Your task to perform on an android device: Search for vegetarian restaurants on Maps Image 0: 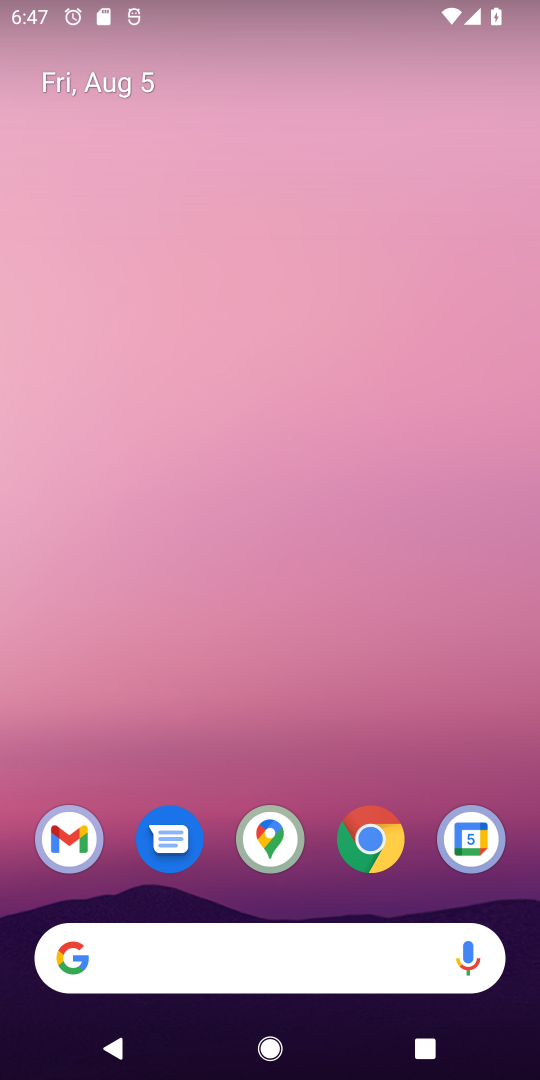
Step 0: click (270, 829)
Your task to perform on an android device: Search for vegetarian restaurants on Maps Image 1: 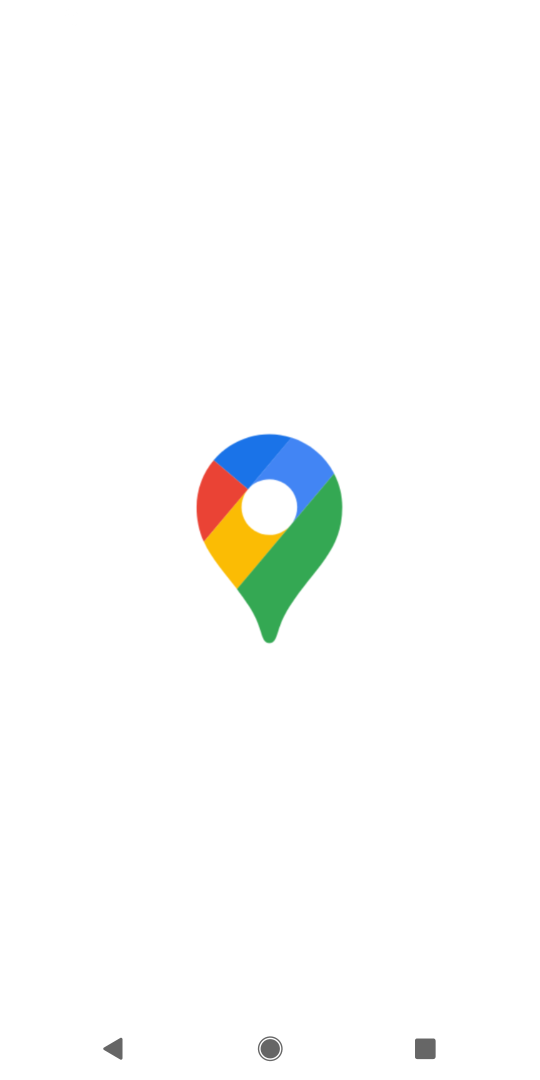
Step 1: task complete